Your task to perform on an android device: Open Google Image 0: 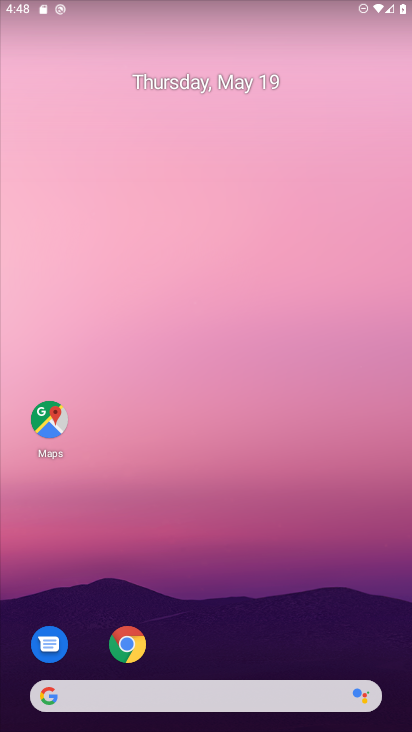
Step 0: drag from (301, 611) to (337, 240)
Your task to perform on an android device: Open Google Image 1: 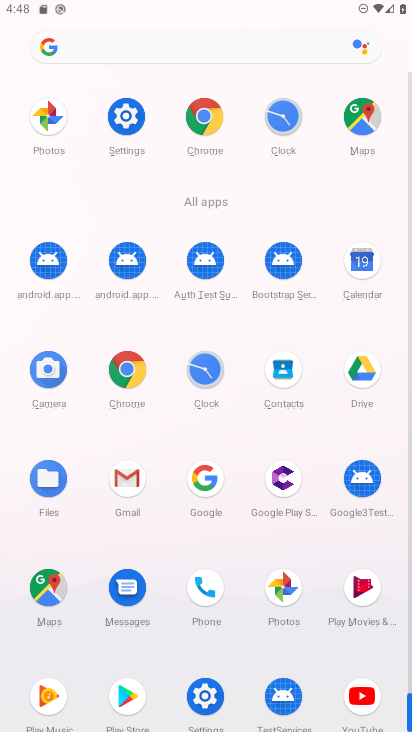
Step 1: click (191, 510)
Your task to perform on an android device: Open Google Image 2: 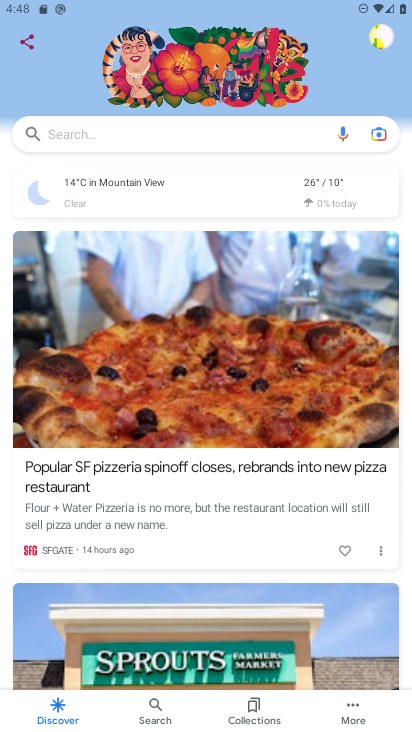
Step 2: task complete